Your task to perform on an android device: What is the news today? Image 0: 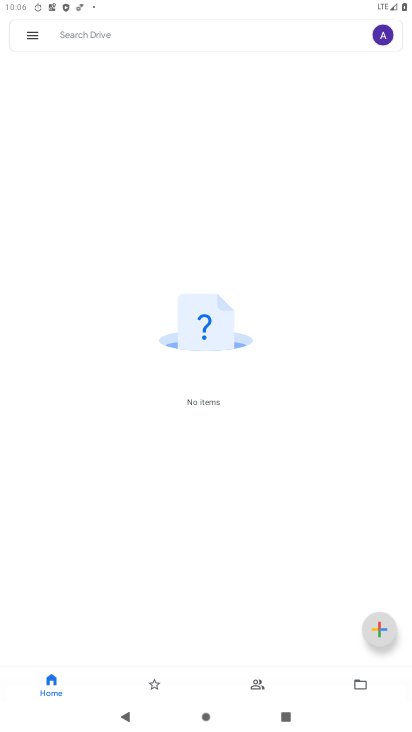
Step 0: press home button
Your task to perform on an android device: What is the news today? Image 1: 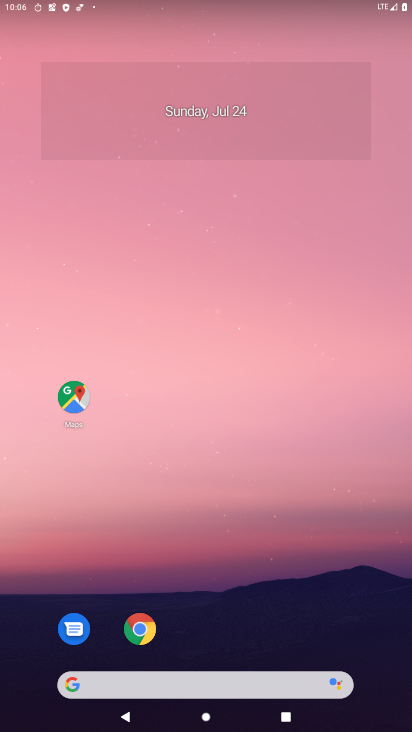
Step 1: click (63, 684)
Your task to perform on an android device: What is the news today? Image 2: 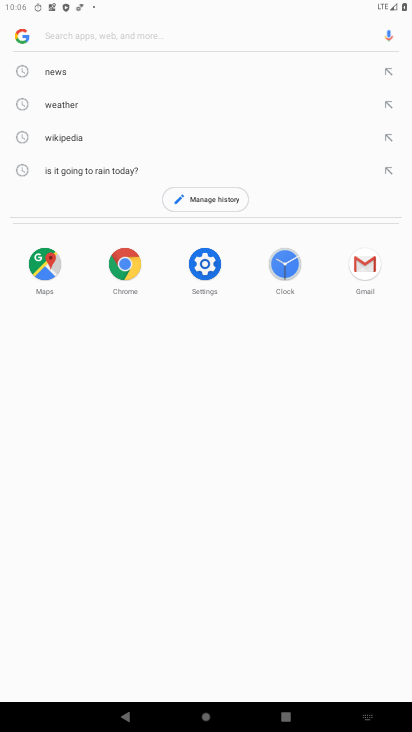
Step 2: type "What is the news today?"
Your task to perform on an android device: What is the news today? Image 3: 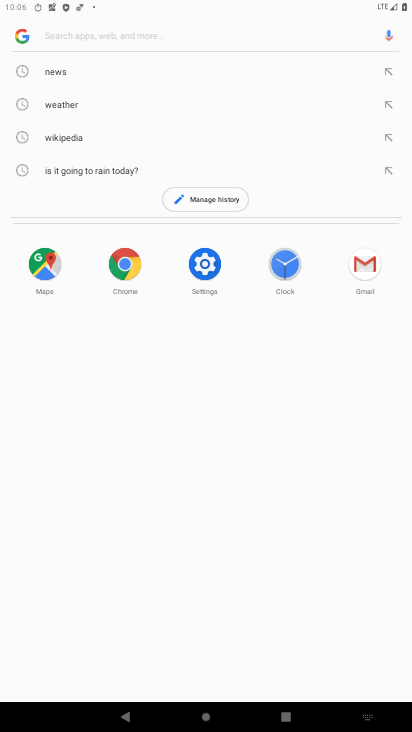
Step 3: click (96, 37)
Your task to perform on an android device: What is the news today? Image 4: 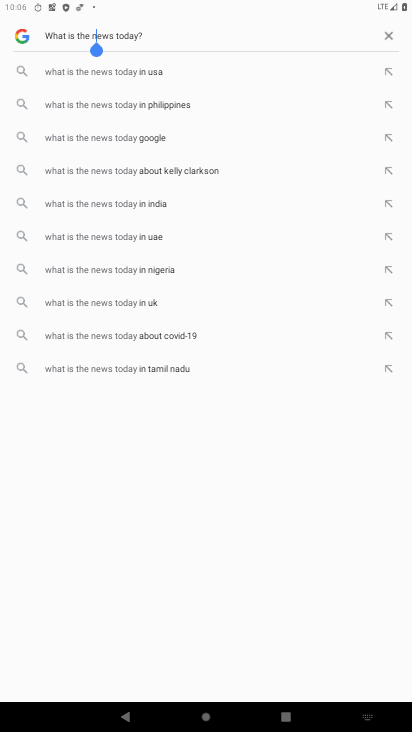
Step 4: press enter
Your task to perform on an android device: What is the news today? Image 5: 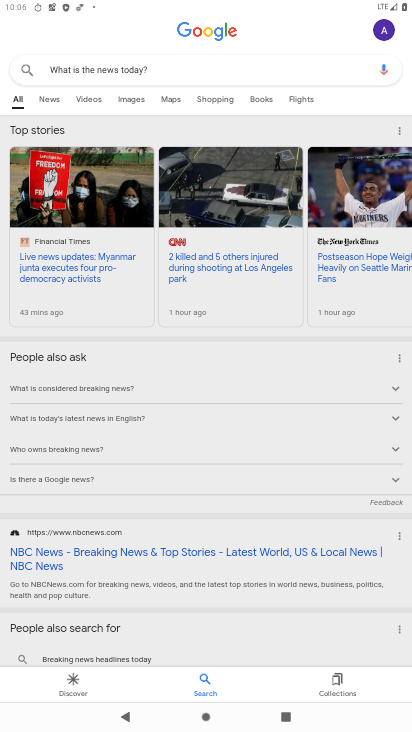
Step 5: task complete